Your task to perform on an android device: Clear the shopping cart on amazon.com. Search for razer nari on amazon.com, select the first entry, add it to the cart, then select checkout. Image 0: 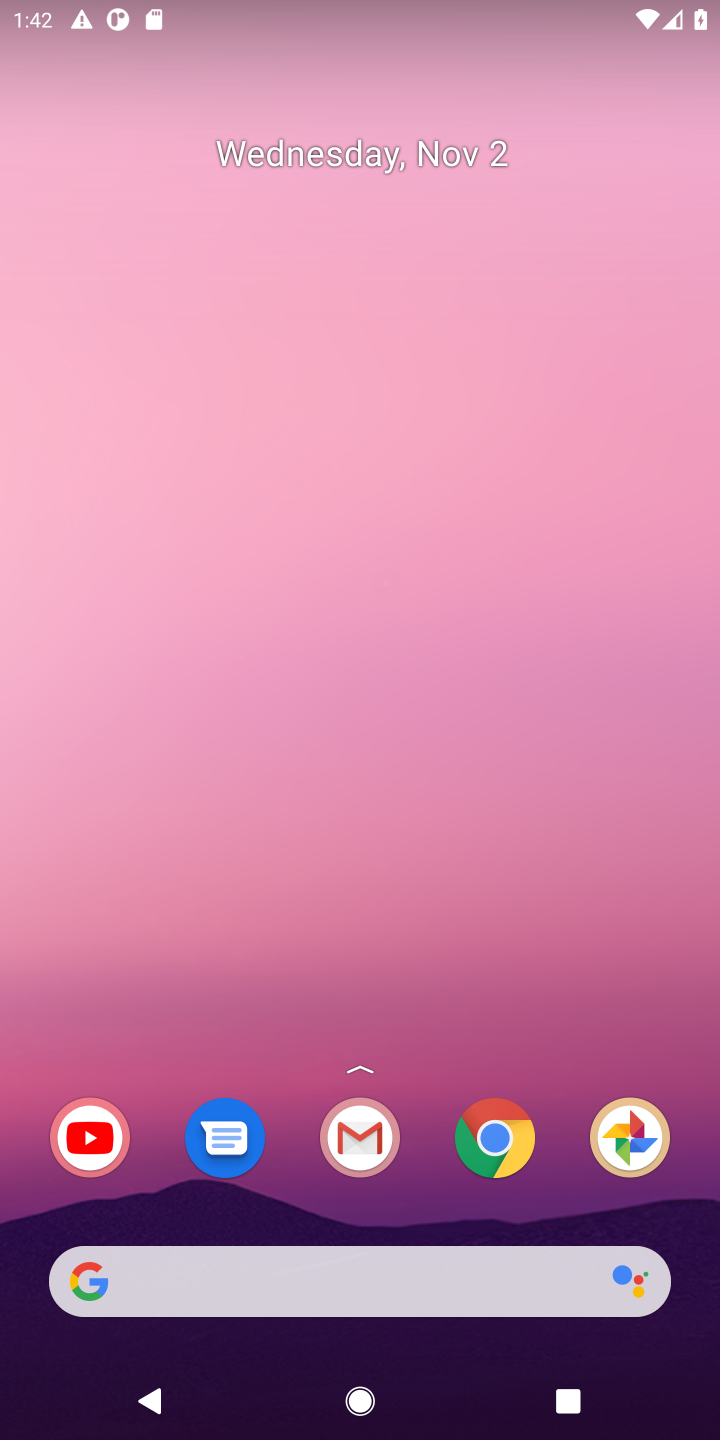
Step 0: press home button
Your task to perform on an android device: Clear the shopping cart on amazon.com. Search for razer nari on amazon.com, select the first entry, add it to the cart, then select checkout. Image 1: 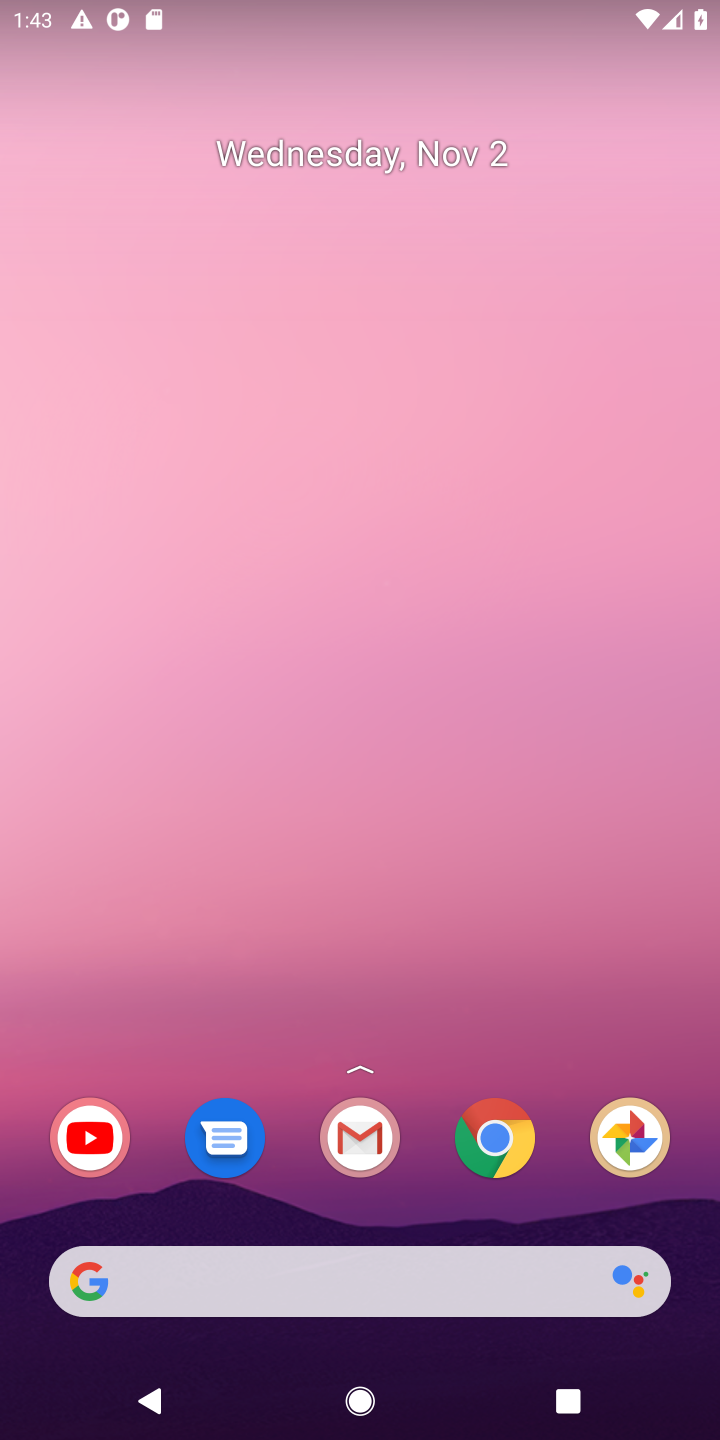
Step 1: click (158, 1276)
Your task to perform on an android device: Clear the shopping cart on amazon.com. Search for razer nari on amazon.com, select the first entry, add it to the cart, then select checkout. Image 2: 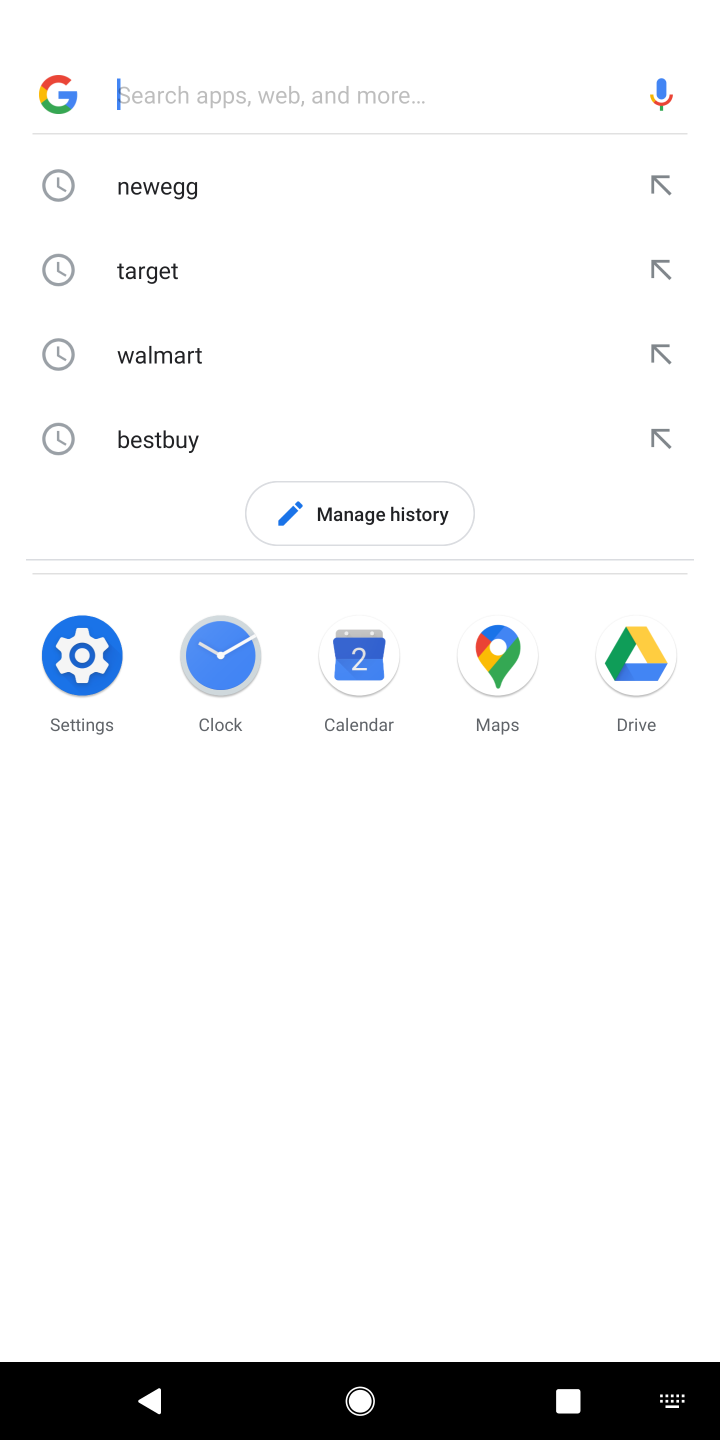
Step 2: type "amazon.com"
Your task to perform on an android device: Clear the shopping cart on amazon.com. Search for razer nari on amazon.com, select the first entry, add it to the cart, then select checkout. Image 3: 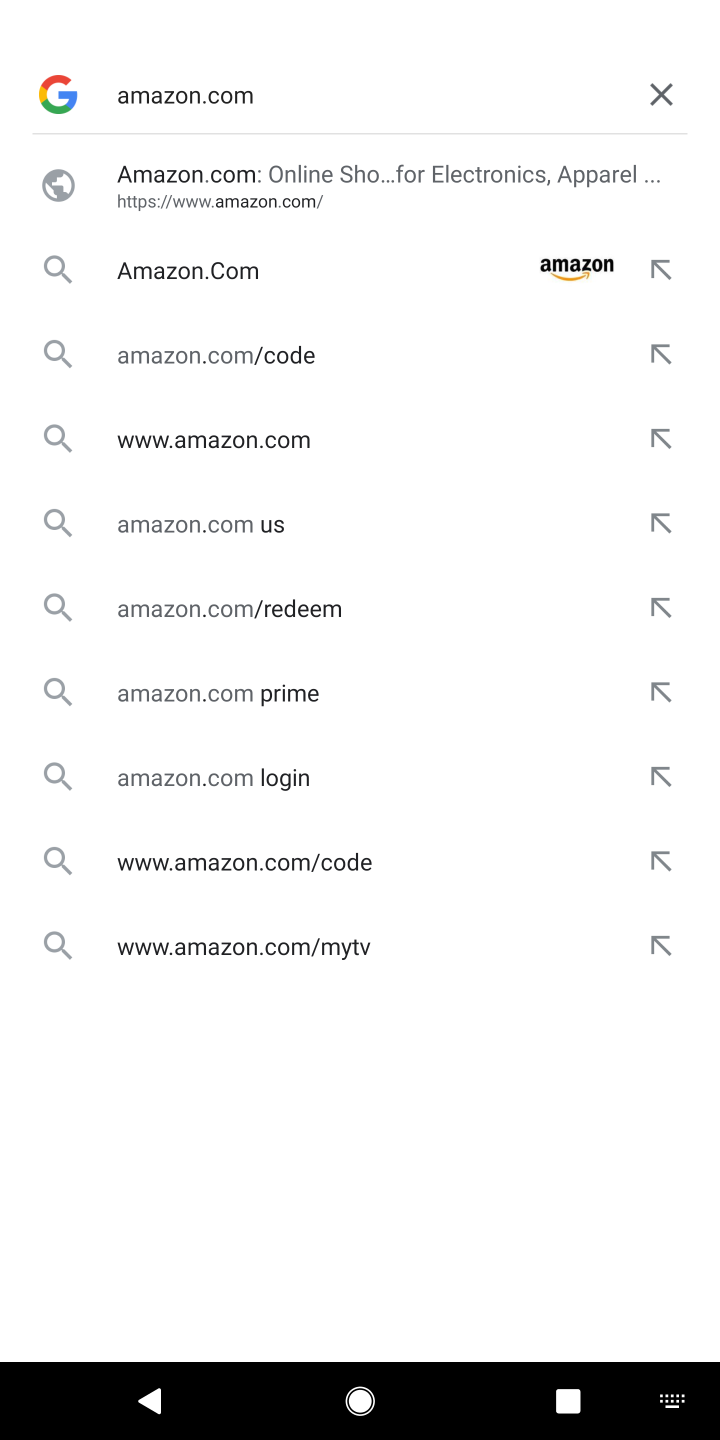
Step 3: press enter
Your task to perform on an android device: Clear the shopping cart on amazon.com. Search for razer nari on amazon.com, select the first entry, add it to the cart, then select checkout. Image 4: 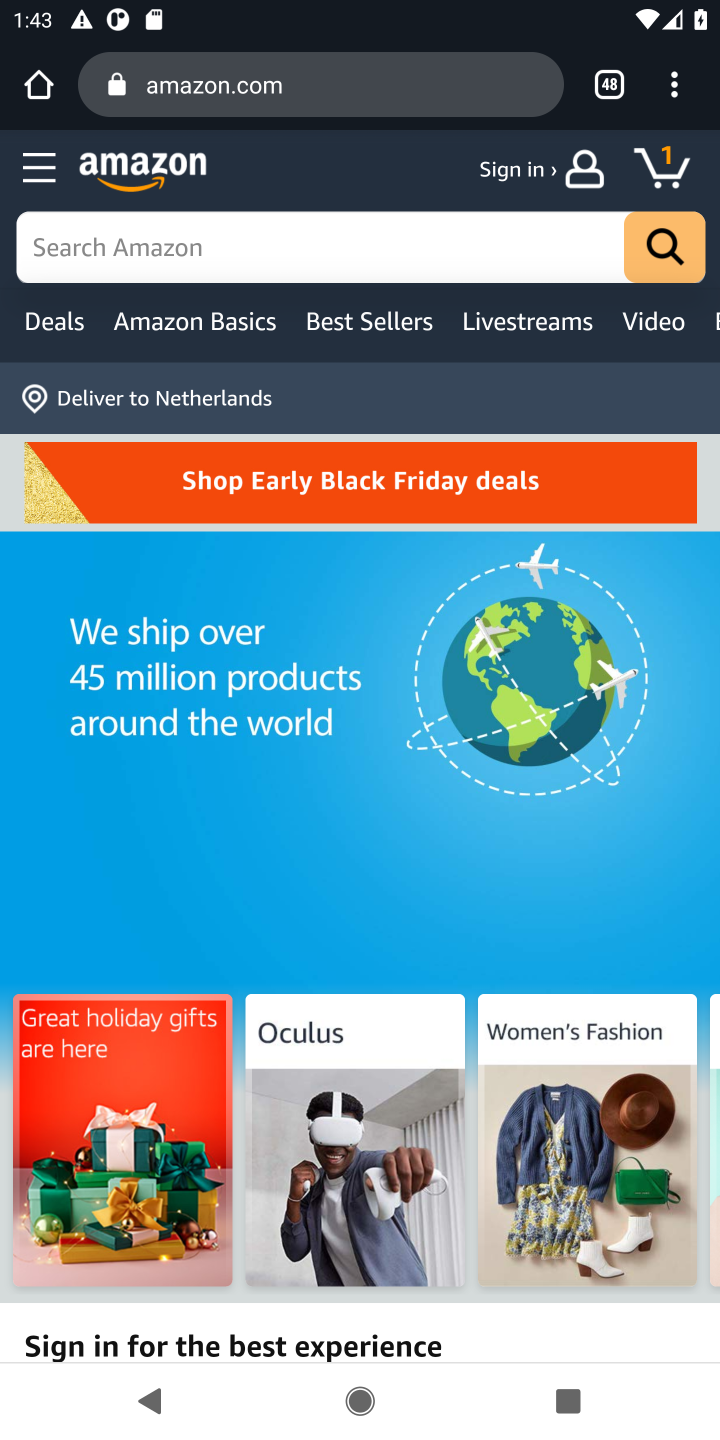
Step 4: click (660, 165)
Your task to perform on an android device: Clear the shopping cart on amazon.com. Search for razer nari on amazon.com, select the first entry, add it to the cart, then select checkout. Image 5: 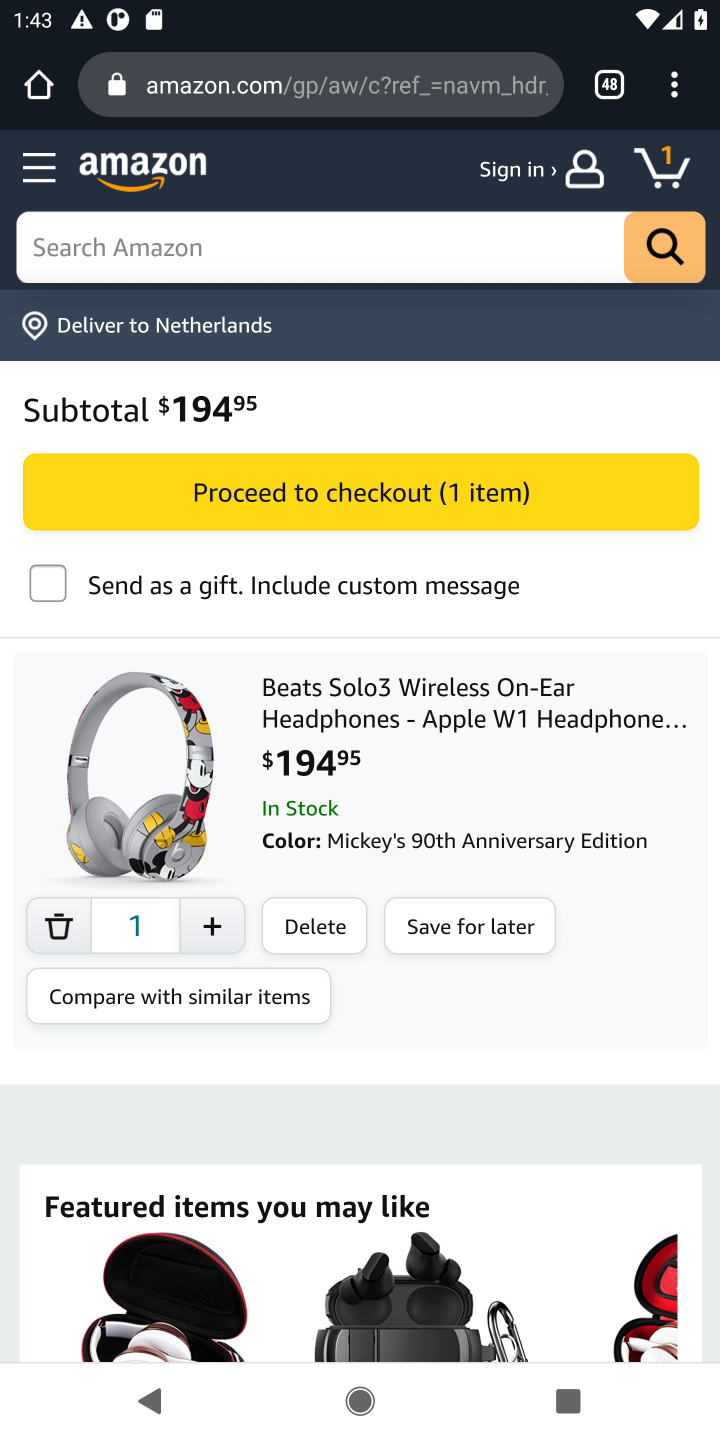
Step 5: click (54, 923)
Your task to perform on an android device: Clear the shopping cart on amazon.com. Search for razer nari on amazon.com, select the first entry, add it to the cart, then select checkout. Image 6: 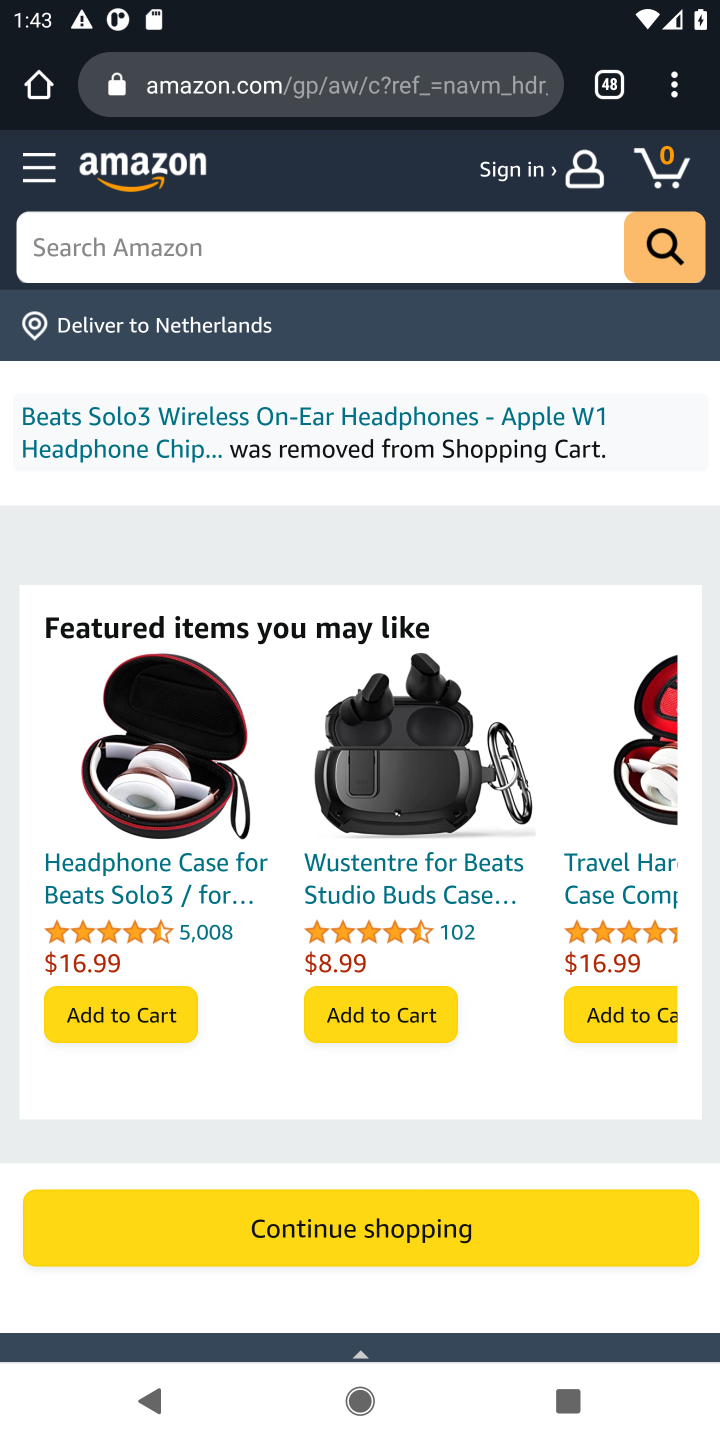
Step 6: click (244, 246)
Your task to perform on an android device: Clear the shopping cart on amazon.com. Search for razer nari on amazon.com, select the first entry, add it to the cart, then select checkout. Image 7: 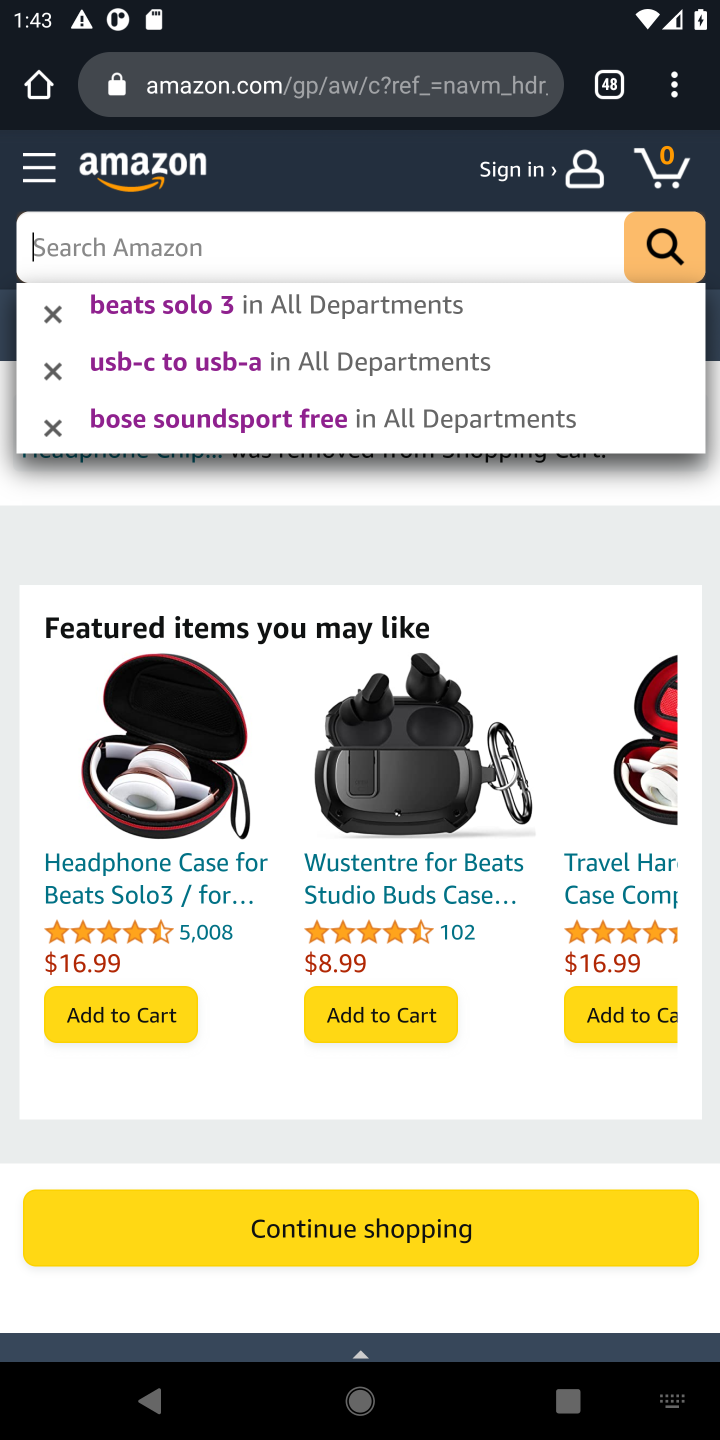
Step 7: type "razer nari"
Your task to perform on an android device: Clear the shopping cart on amazon.com. Search for razer nari on amazon.com, select the first entry, add it to the cart, then select checkout. Image 8: 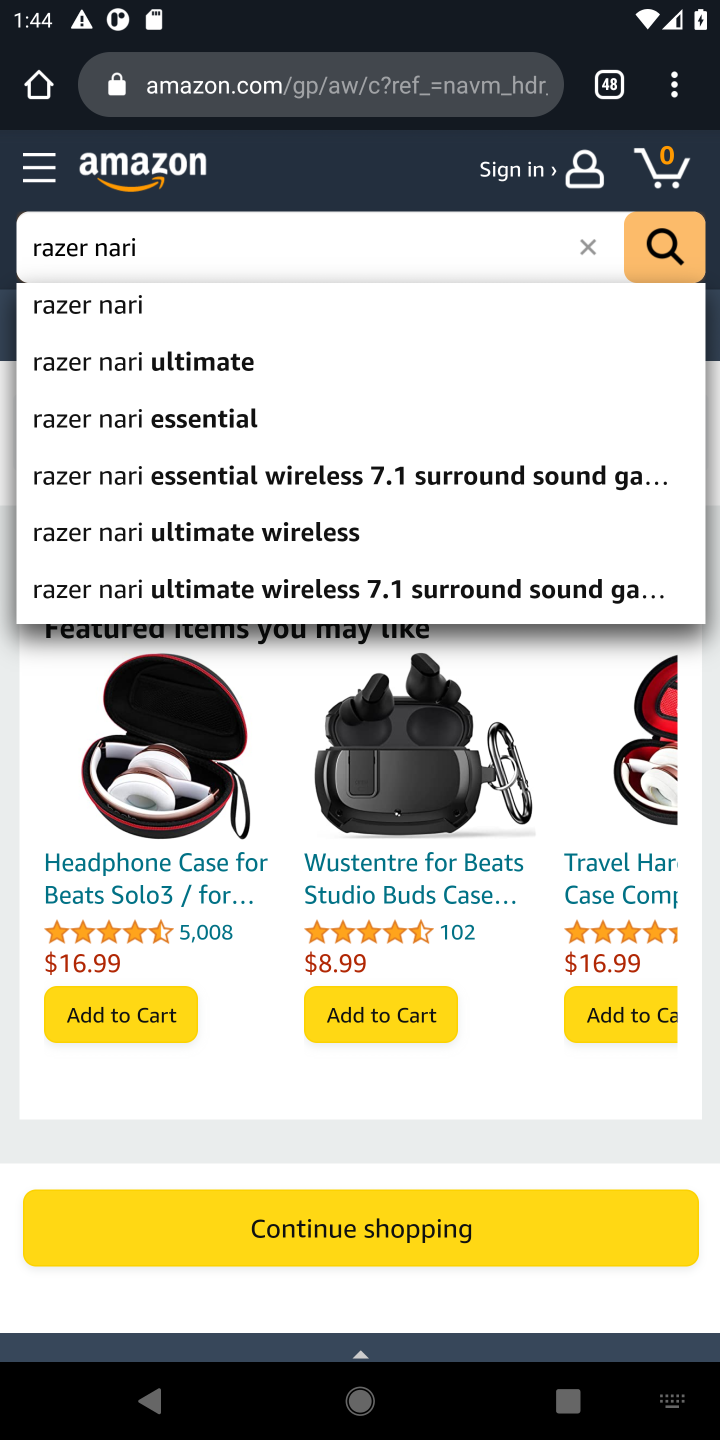
Step 8: click (663, 242)
Your task to perform on an android device: Clear the shopping cart on amazon.com. Search for razer nari on amazon.com, select the first entry, add it to the cart, then select checkout. Image 9: 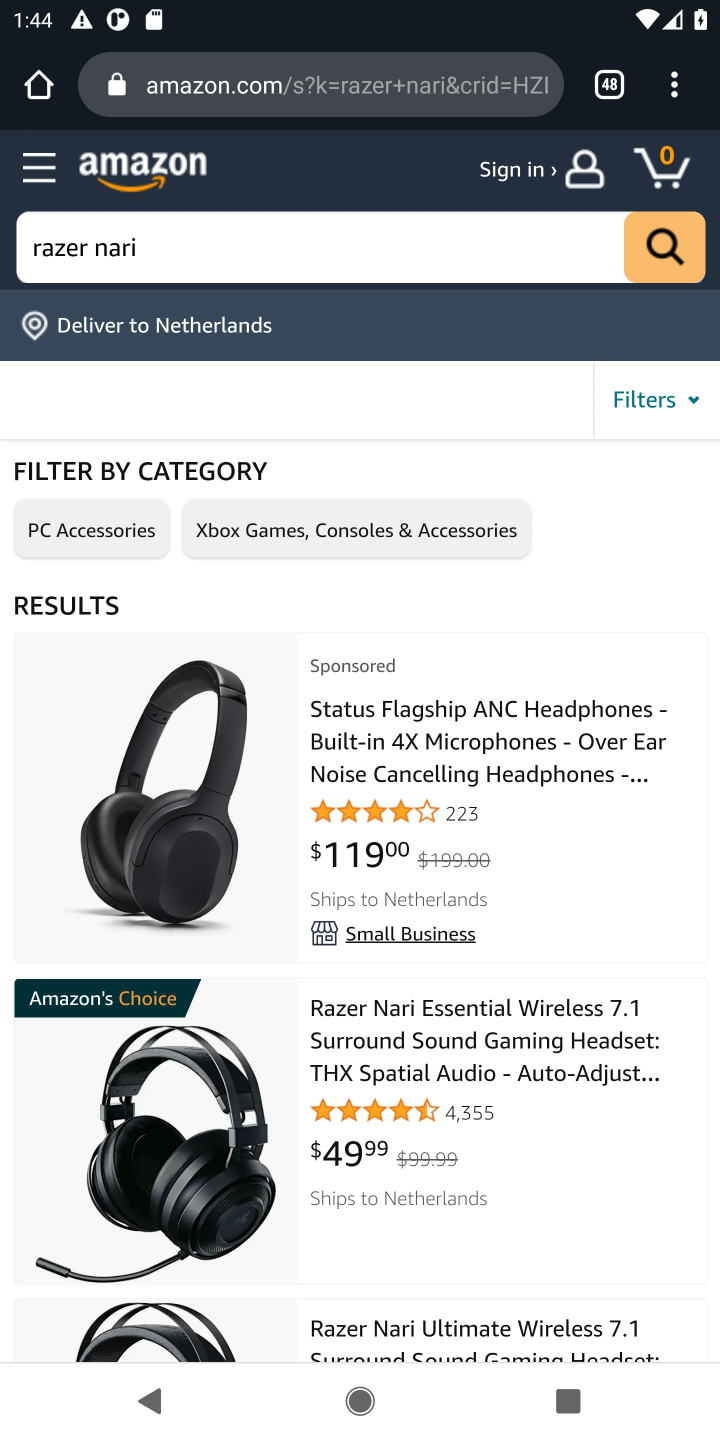
Step 9: drag from (499, 1085) to (506, 802)
Your task to perform on an android device: Clear the shopping cart on amazon.com. Search for razer nari on amazon.com, select the first entry, add it to the cart, then select checkout. Image 10: 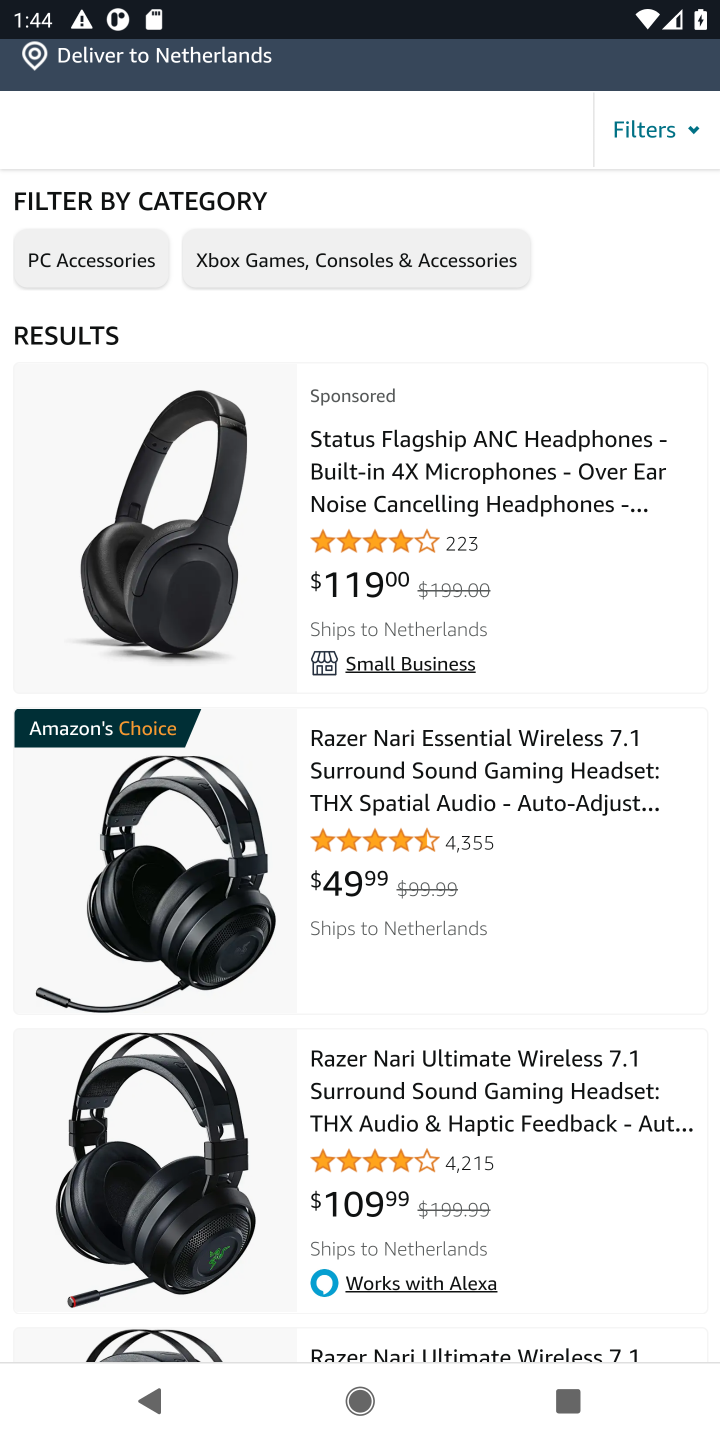
Step 10: click (396, 782)
Your task to perform on an android device: Clear the shopping cart on amazon.com. Search for razer nari on amazon.com, select the first entry, add it to the cart, then select checkout. Image 11: 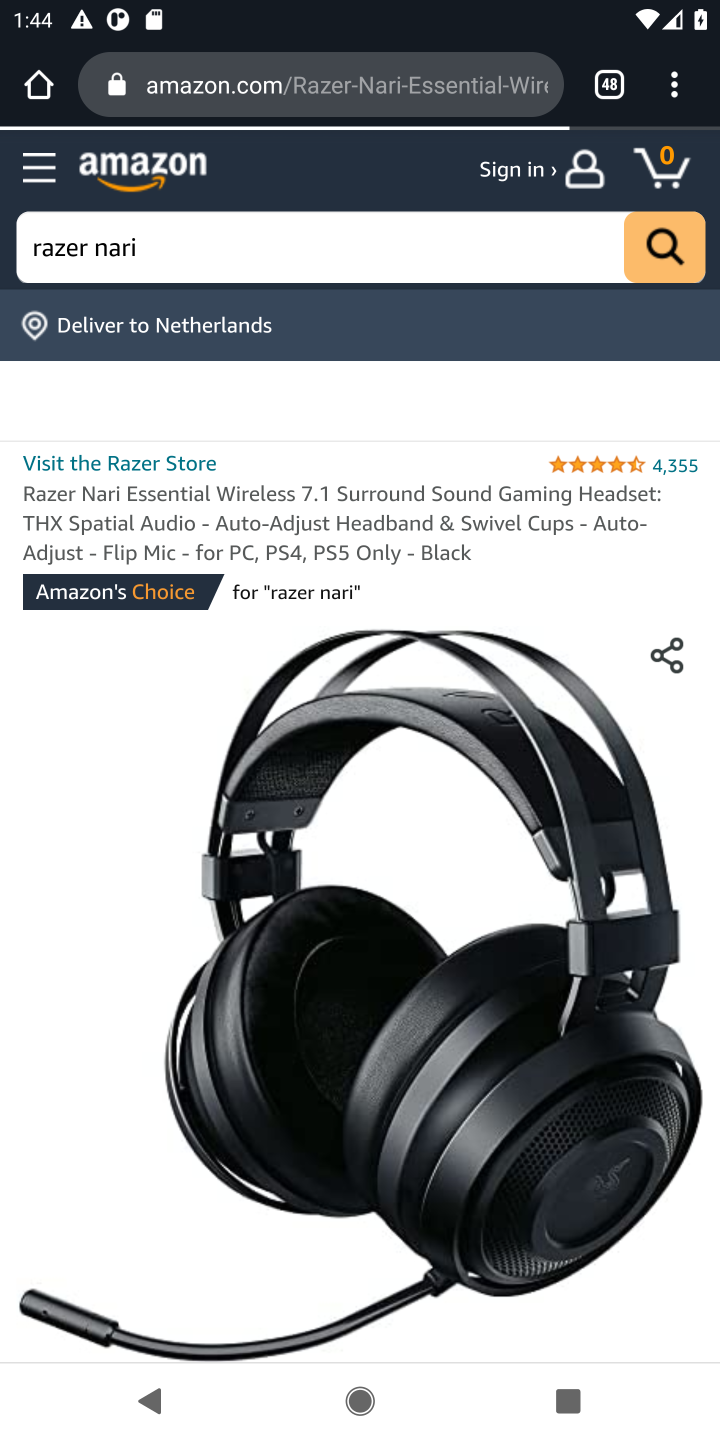
Step 11: drag from (392, 1016) to (470, 608)
Your task to perform on an android device: Clear the shopping cart on amazon.com. Search for razer nari on amazon.com, select the first entry, add it to the cart, then select checkout. Image 12: 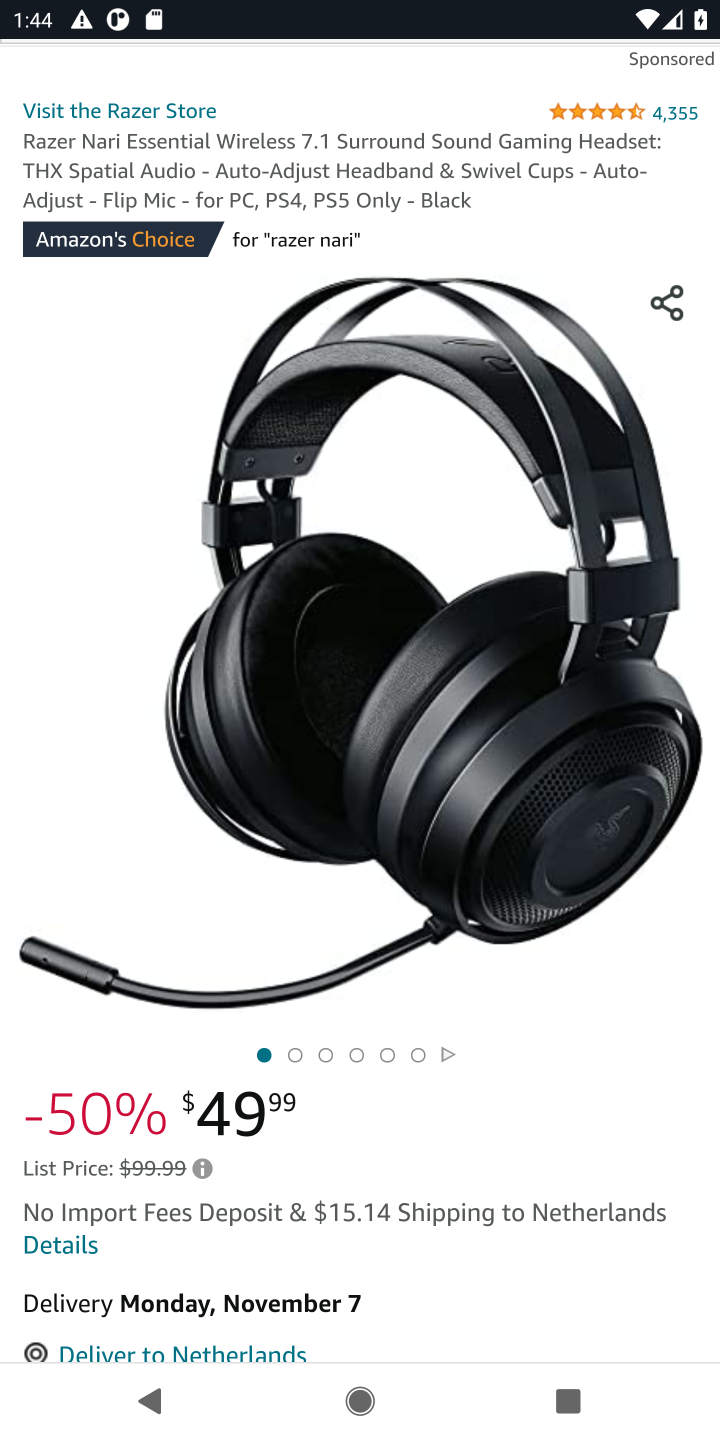
Step 12: drag from (372, 927) to (369, 514)
Your task to perform on an android device: Clear the shopping cart on amazon.com. Search for razer nari on amazon.com, select the first entry, add it to the cart, then select checkout. Image 13: 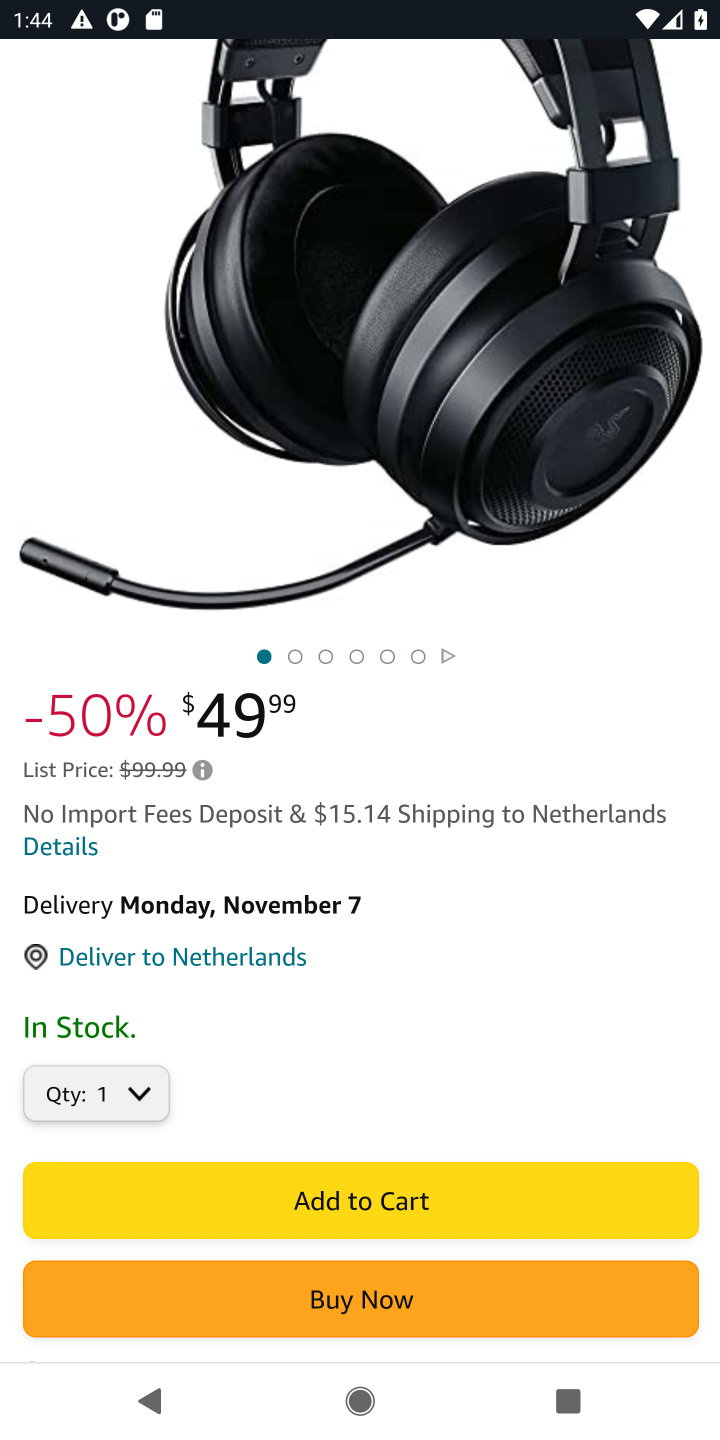
Step 13: click (357, 1197)
Your task to perform on an android device: Clear the shopping cart on amazon.com. Search for razer nari on amazon.com, select the first entry, add it to the cart, then select checkout. Image 14: 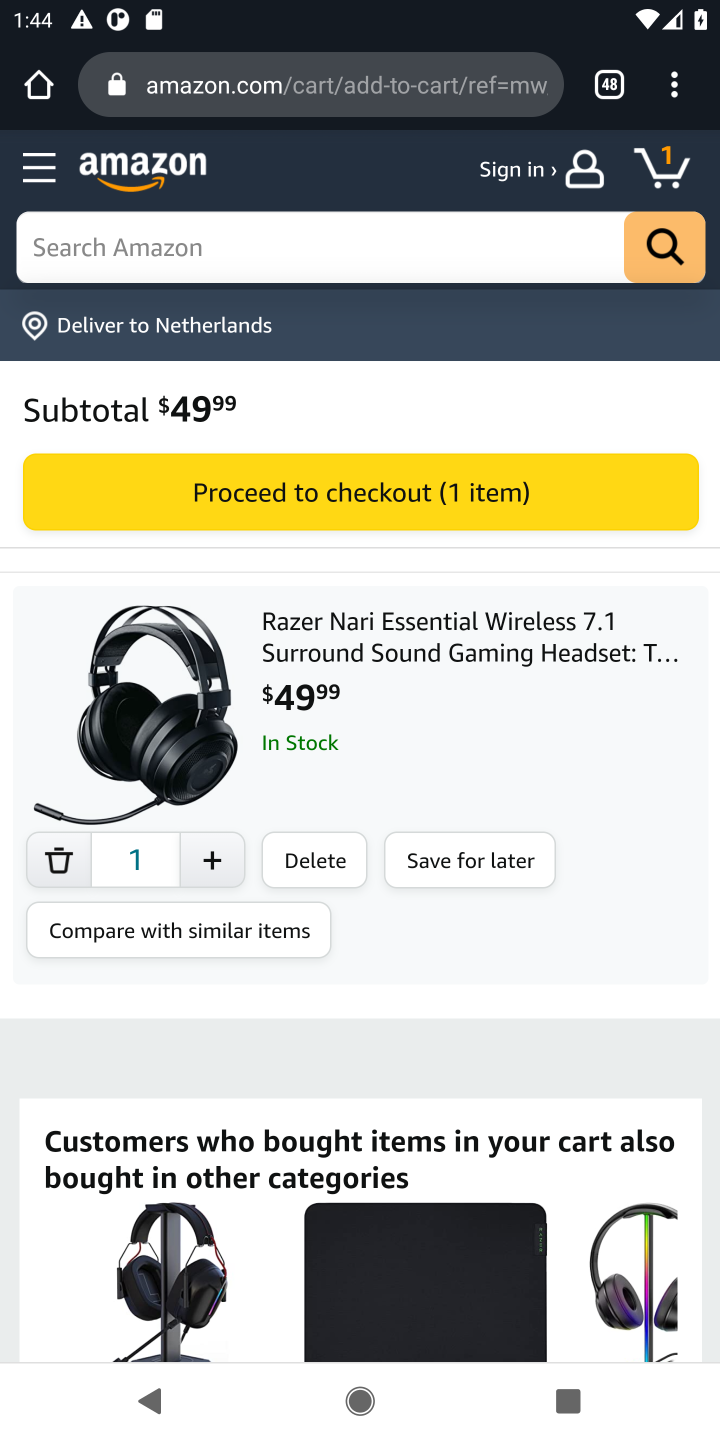
Step 14: click (374, 490)
Your task to perform on an android device: Clear the shopping cart on amazon.com. Search for razer nari on amazon.com, select the first entry, add it to the cart, then select checkout. Image 15: 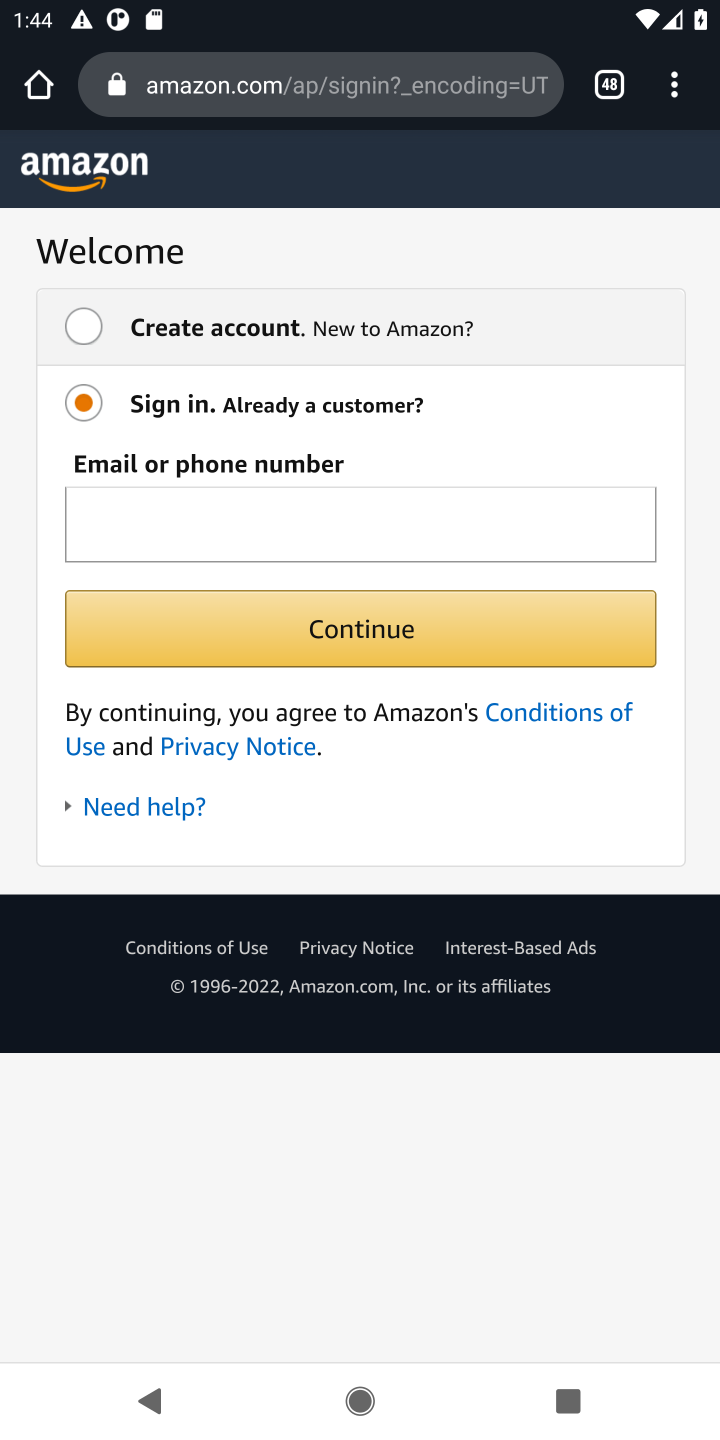
Step 15: task complete